Your task to perform on an android device: Go to Reddit.com Image 0: 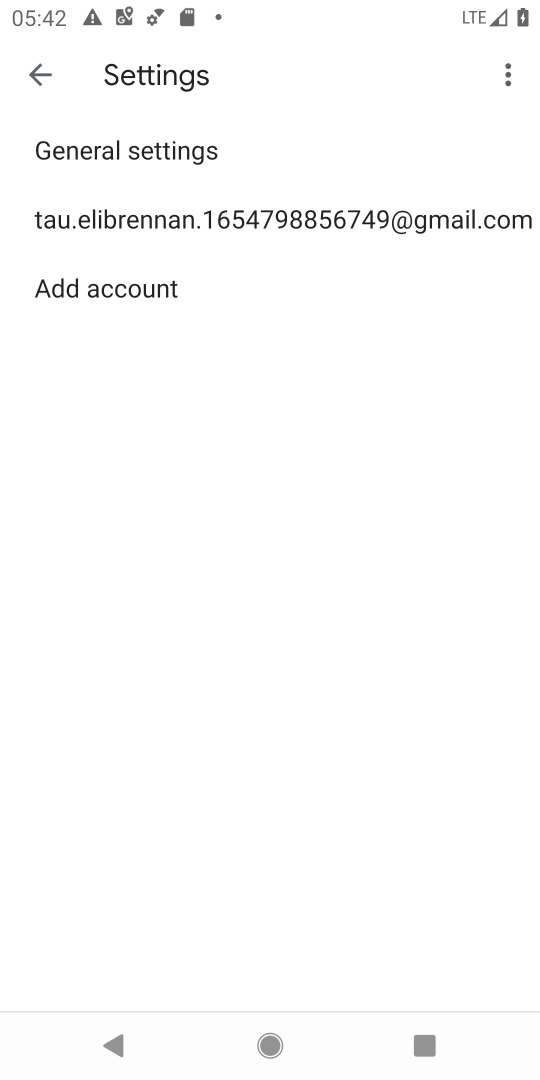
Step 0: press home button
Your task to perform on an android device: Go to Reddit.com Image 1: 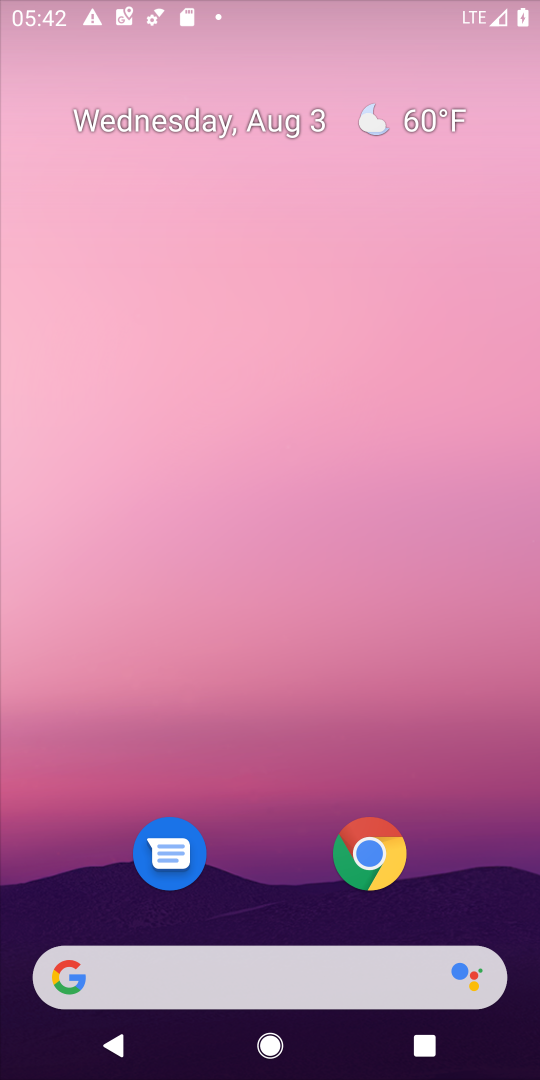
Step 1: press home button
Your task to perform on an android device: Go to Reddit.com Image 2: 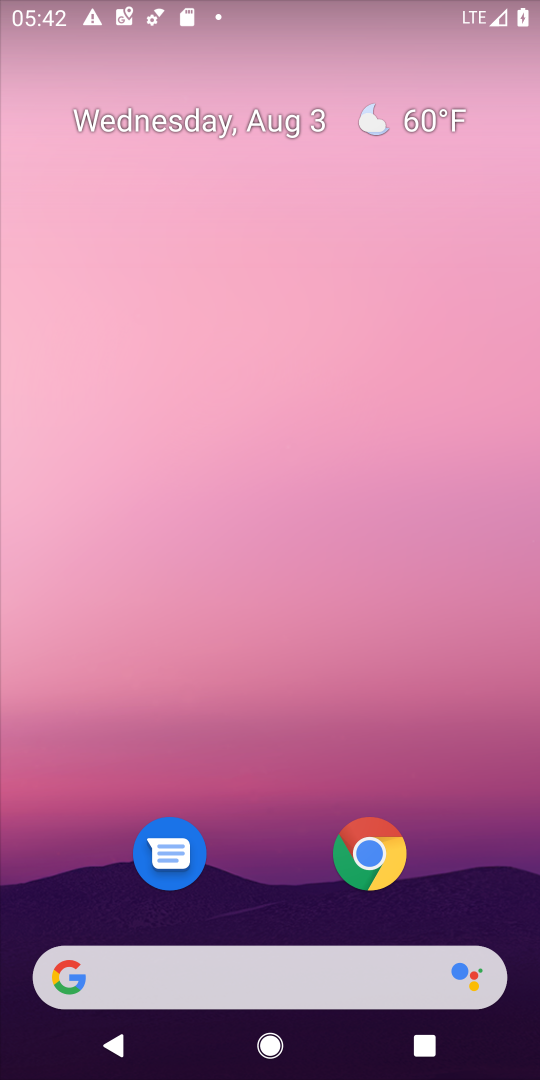
Step 2: click (367, 857)
Your task to perform on an android device: Go to Reddit.com Image 3: 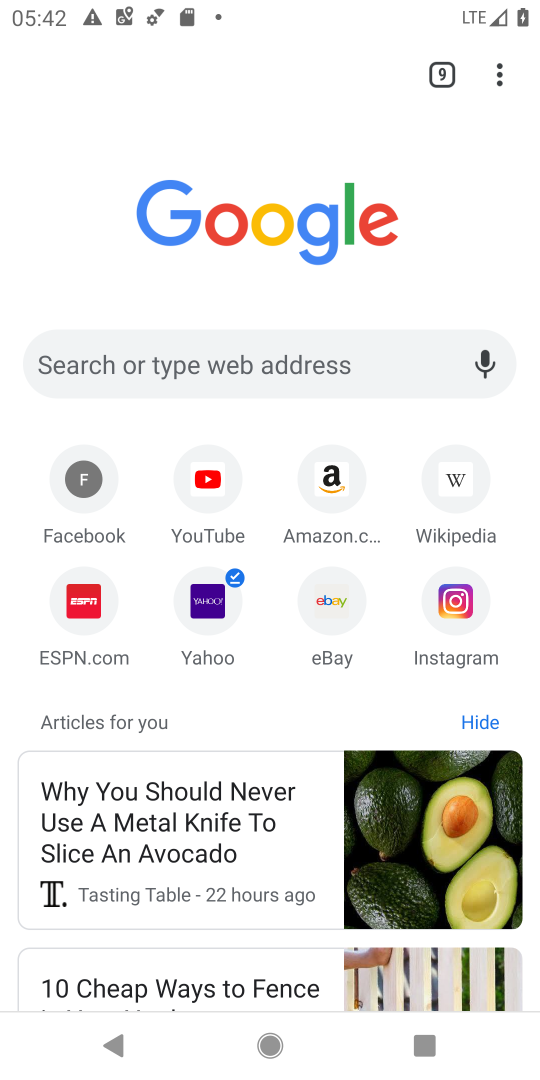
Step 3: click (307, 357)
Your task to perform on an android device: Go to Reddit.com Image 4: 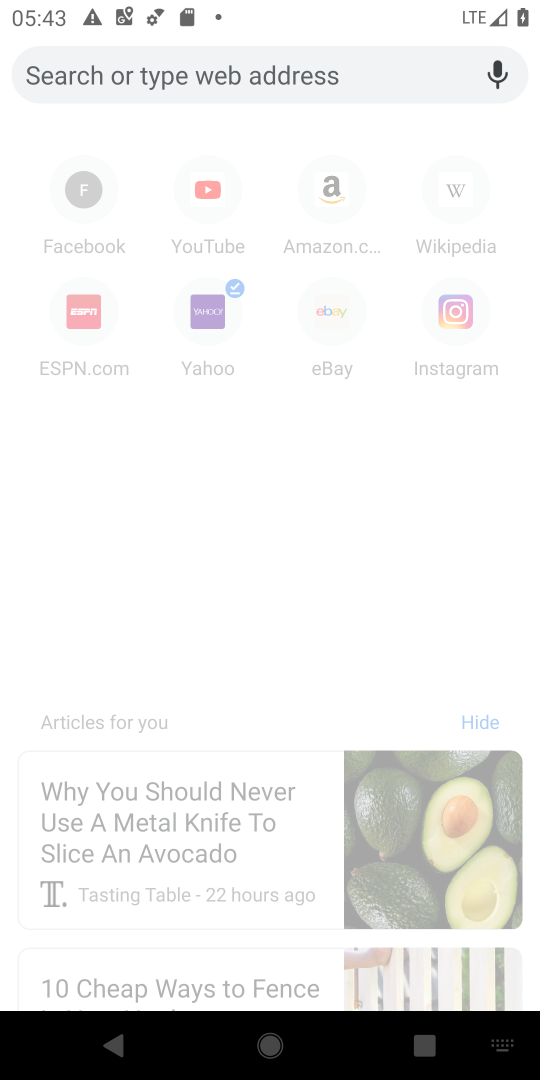
Step 4: type "Reddit.com"
Your task to perform on an android device: Go to Reddit.com Image 5: 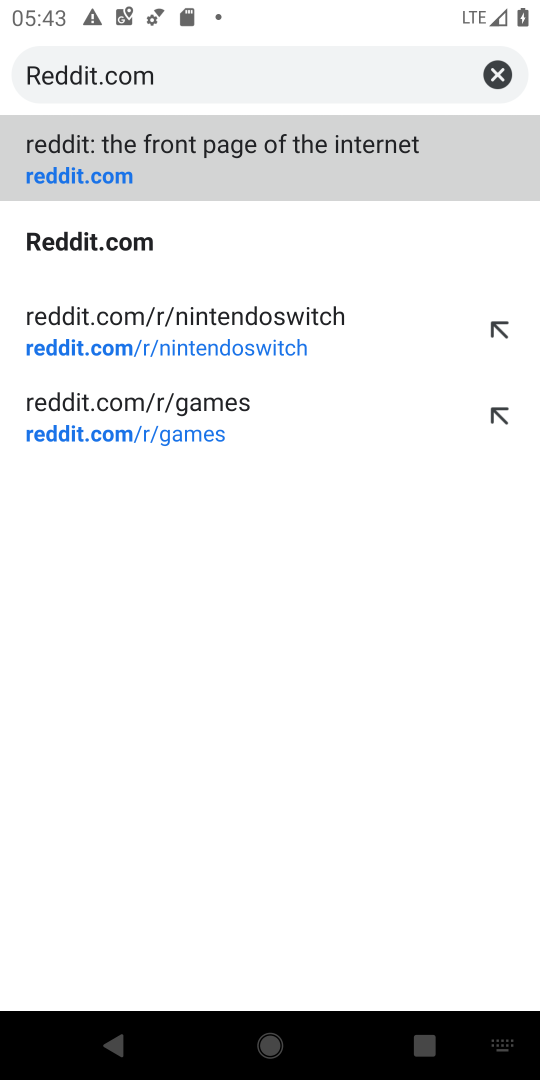
Step 5: click (292, 148)
Your task to perform on an android device: Go to Reddit.com Image 6: 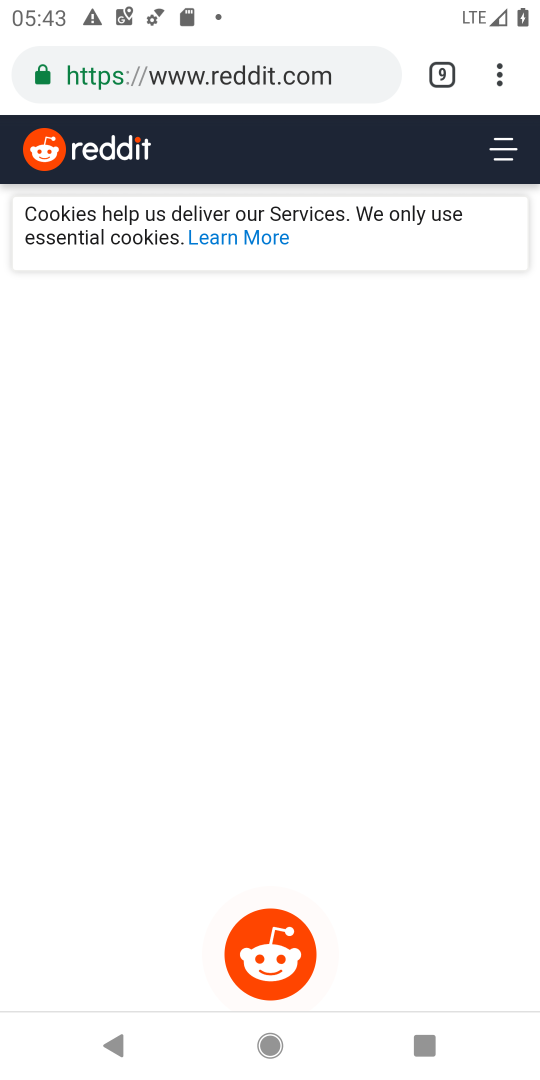
Step 6: task complete